Your task to perform on an android device: open a new tab in the chrome app Image 0: 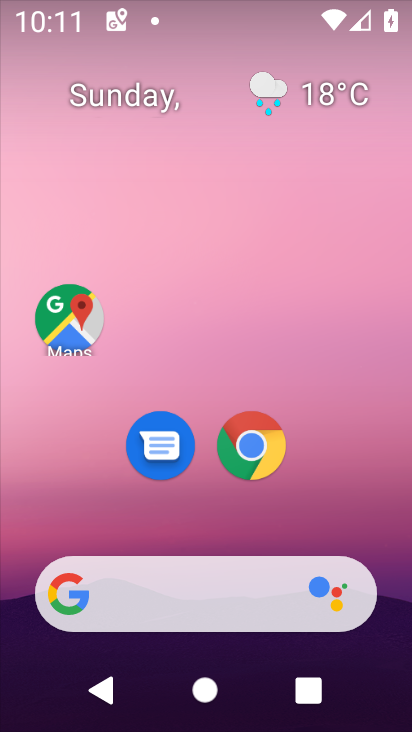
Step 0: press home button
Your task to perform on an android device: open a new tab in the chrome app Image 1: 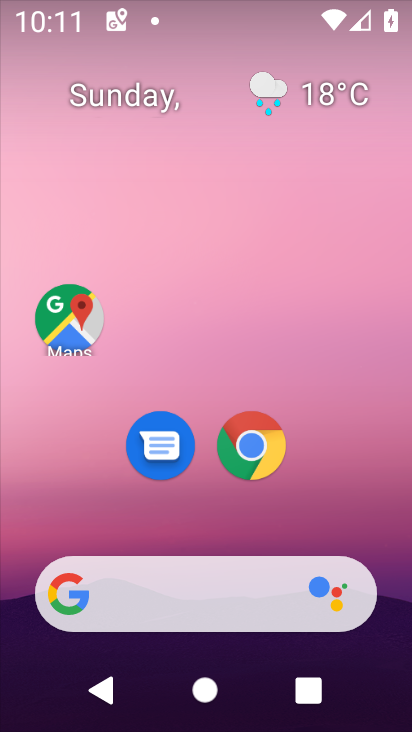
Step 1: click (252, 435)
Your task to perform on an android device: open a new tab in the chrome app Image 2: 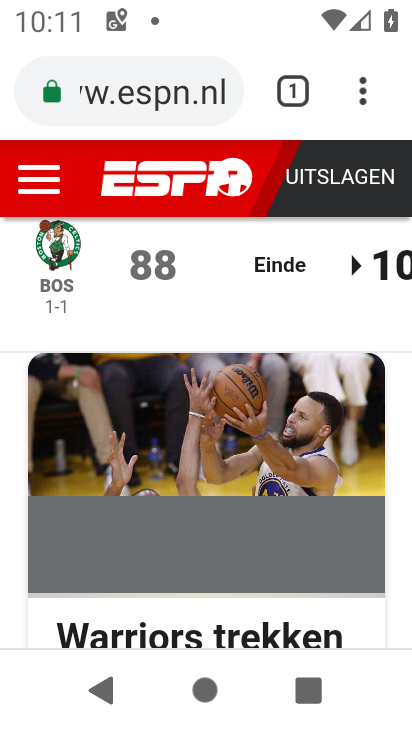
Step 2: click (360, 86)
Your task to perform on an android device: open a new tab in the chrome app Image 3: 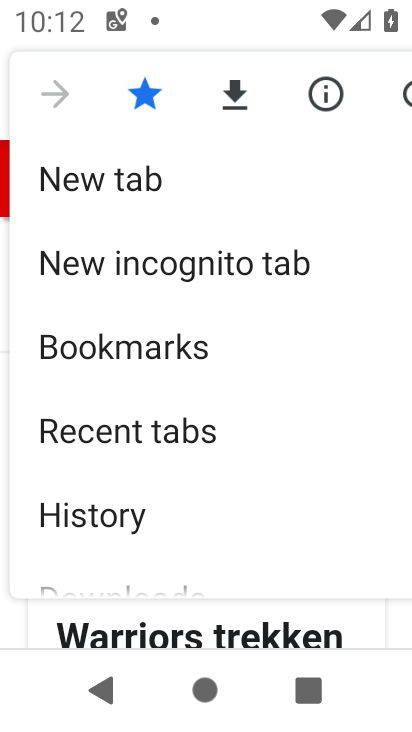
Step 3: click (119, 172)
Your task to perform on an android device: open a new tab in the chrome app Image 4: 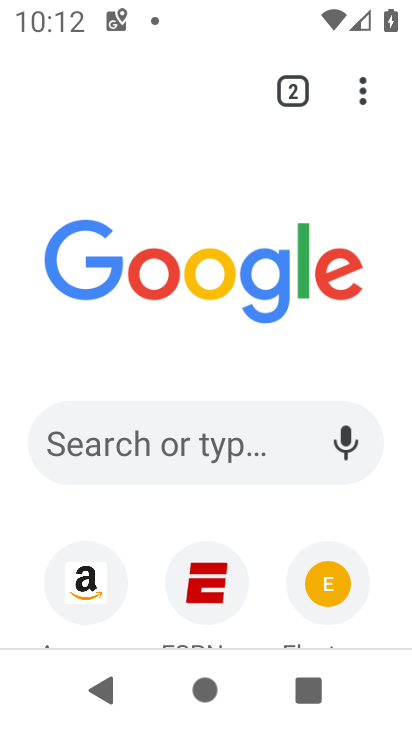
Step 4: task complete